Your task to perform on an android device: read, delete, or share a saved page in the chrome app Image 0: 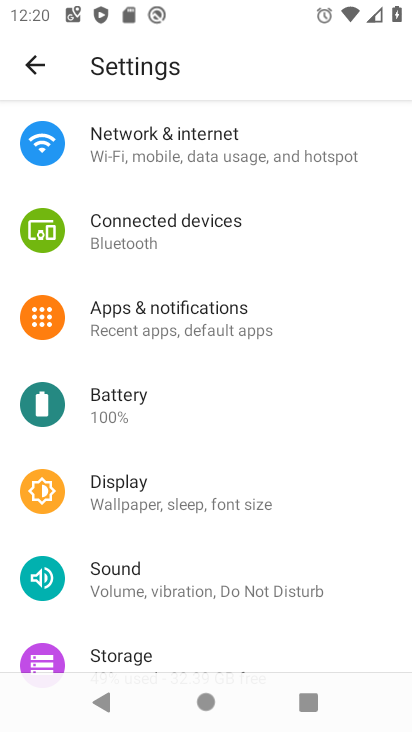
Step 0: press home button
Your task to perform on an android device: read, delete, or share a saved page in the chrome app Image 1: 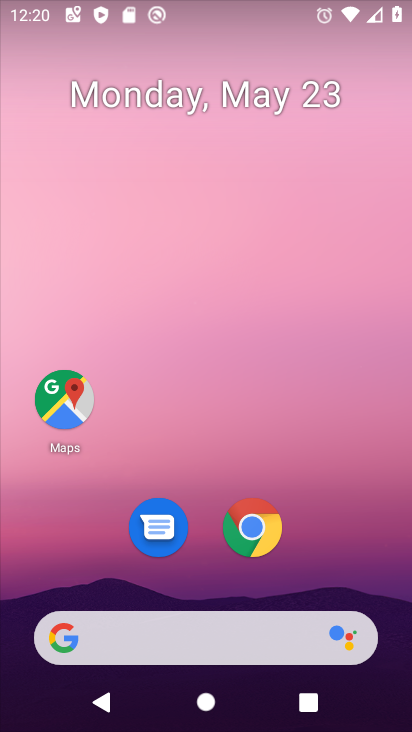
Step 1: click (261, 527)
Your task to perform on an android device: read, delete, or share a saved page in the chrome app Image 2: 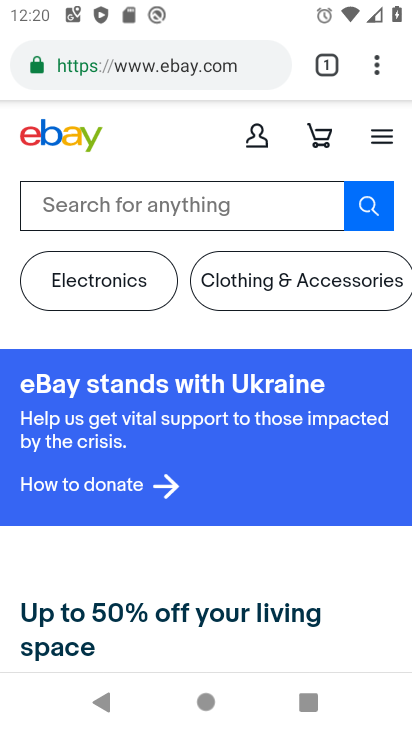
Step 2: click (383, 74)
Your task to perform on an android device: read, delete, or share a saved page in the chrome app Image 3: 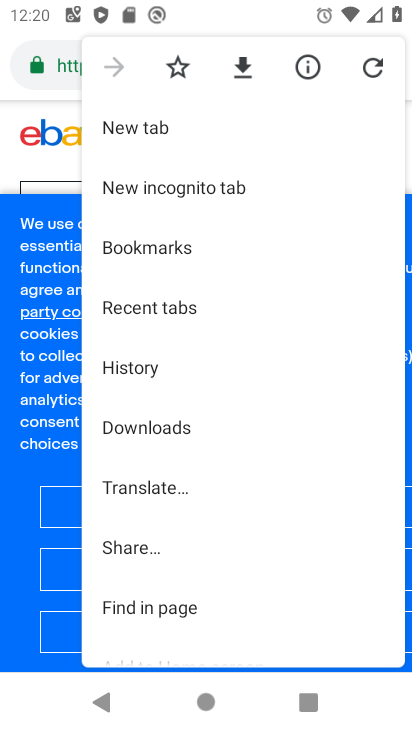
Step 3: drag from (212, 598) to (181, 508)
Your task to perform on an android device: read, delete, or share a saved page in the chrome app Image 4: 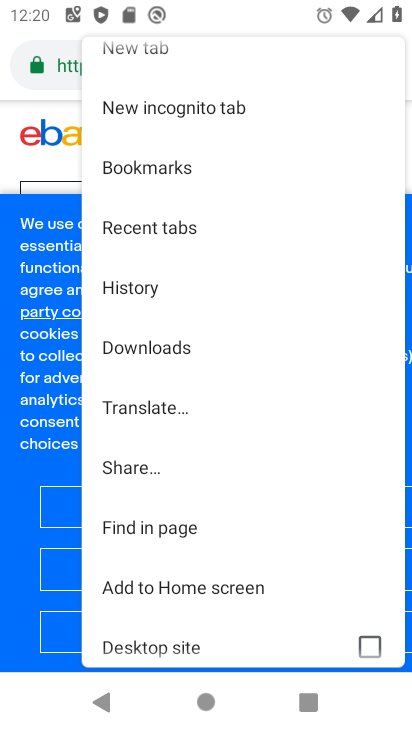
Step 4: click (177, 350)
Your task to perform on an android device: read, delete, or share a saved page in the chrome app Image 5: 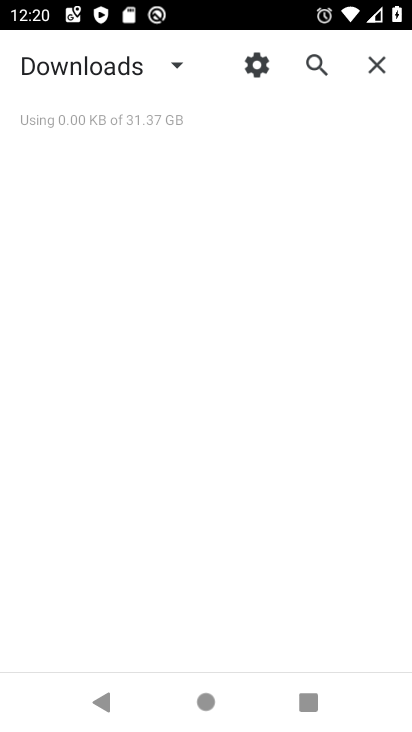
Step 5: task complete